Your task to perform on an android device: Is it going to rain today? Image 0: 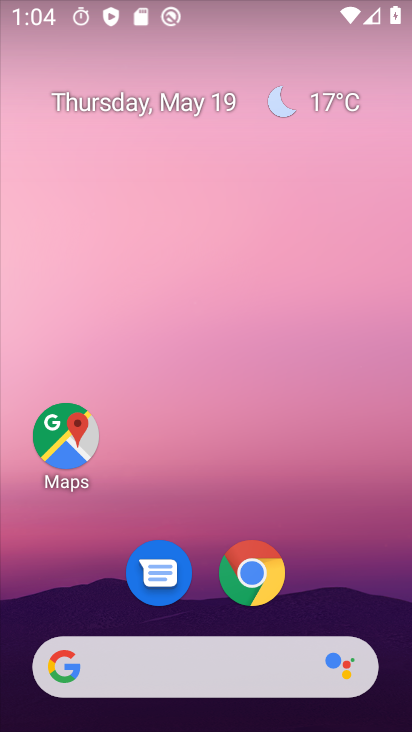
Step 0: click (285, 109)
Your task to perform on an android device: Is it going to rain today? Image 1: 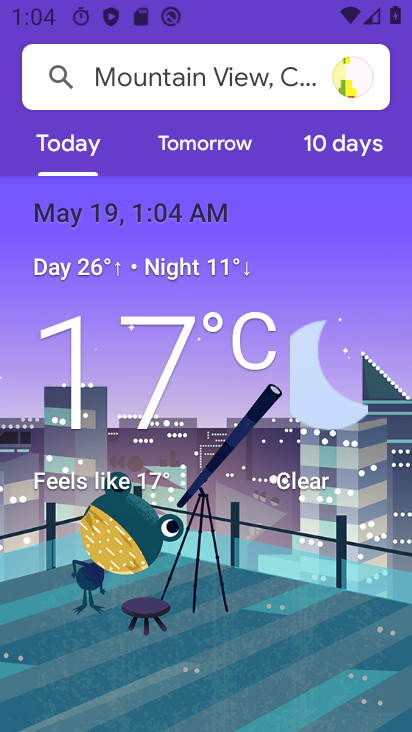
Step 1: task complete